Your task to perform on an android device: delete browsing data in the chrome app Image 0: 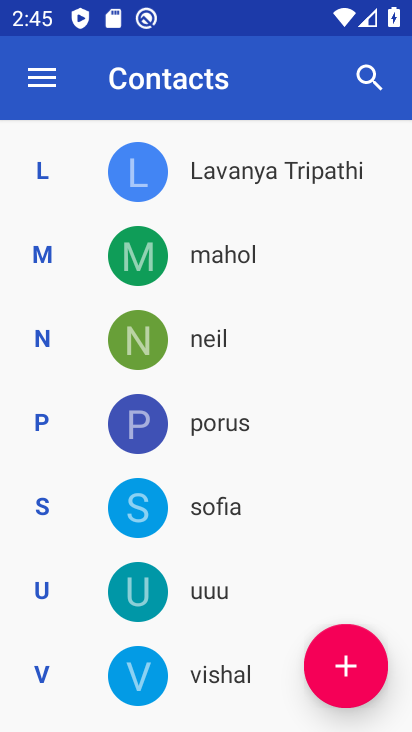
Step 0: press back button
Your task to perform on an android device: delete browsing data in the chrome app Image 1: 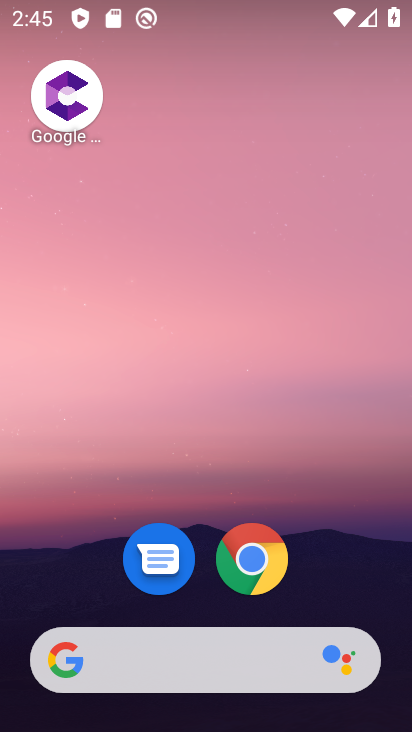
Step 1: drag from (222, 580) to (271, 63)
Your task to perform on an android device: delete browsing data in the chrome app Image 2: 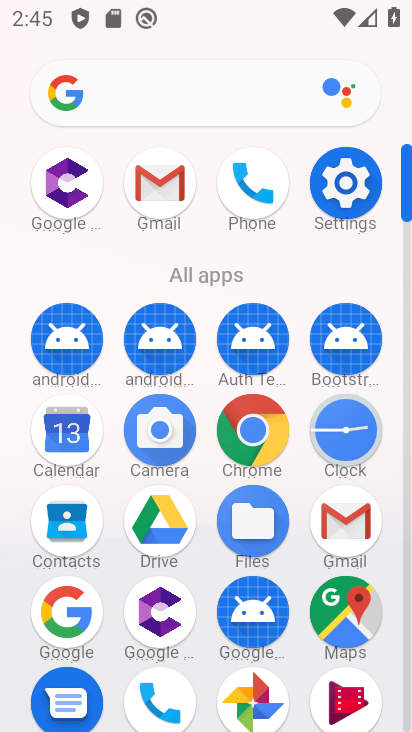
Step 2: click (259, 425)
Your task to perform on an android device: delete browsing data in the chrome app Image 3: 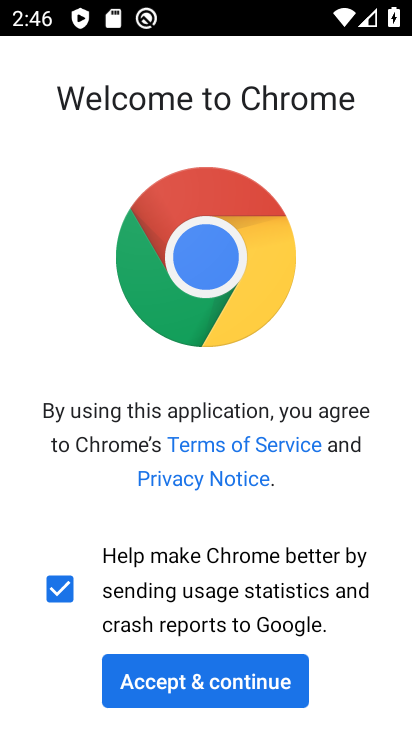
Step 3: click (213, 686)
Your task to perform on an android device: delete browsing data in the chrome app Image 4: 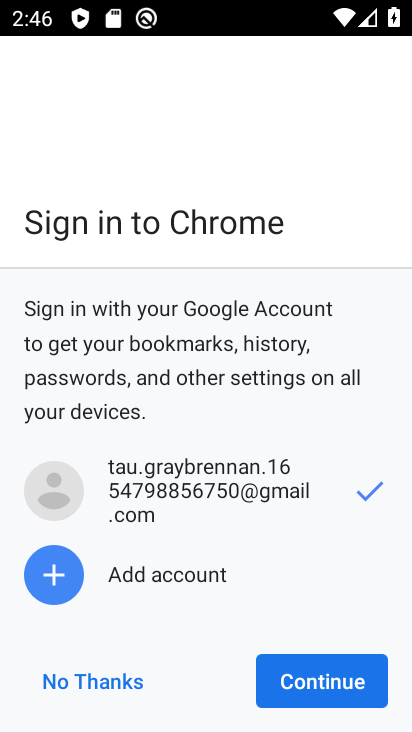
Step 4: click (326, 692)
Your task to perform on an android device: delete browsing data in the chrome app Image 5: 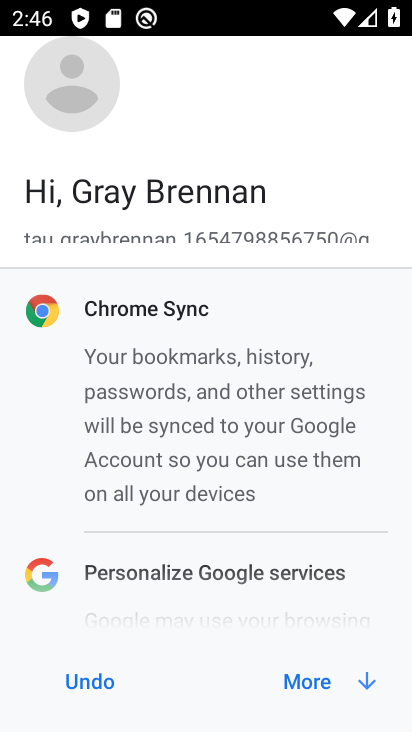
Step 5: click (323, 682)
Your task to perform on an android device: delete browsing data in the chrome app Image 6: 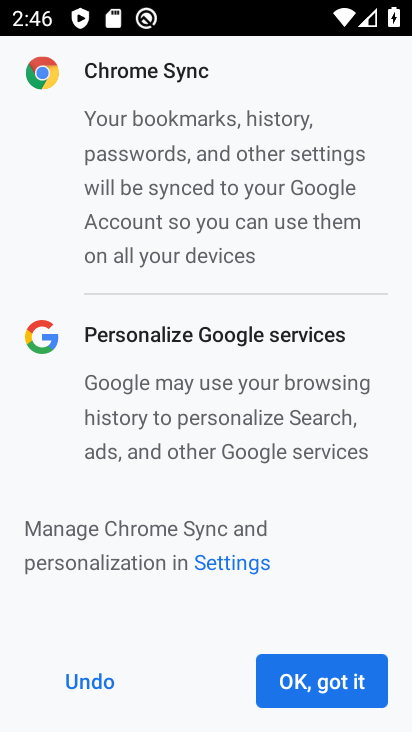
Step 6: click (318, 683)
Your task to perform on an android device: delete browsing data in the chrome app Image 7: 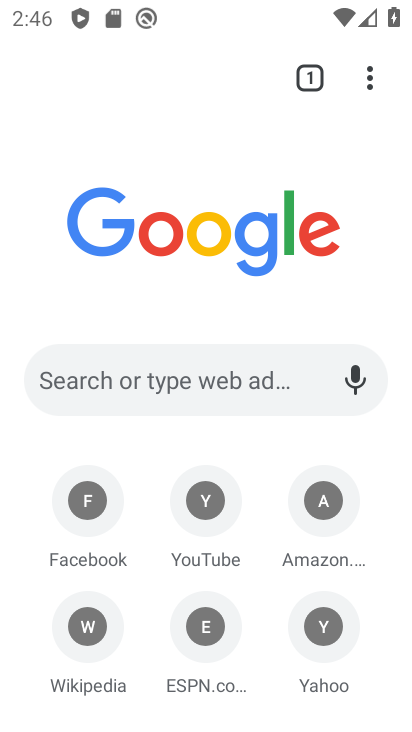
Step 7: drag from (370, 70) to (102, 429)
Your task to perform on an android device: delete browsing data in the chrome app Image 8: 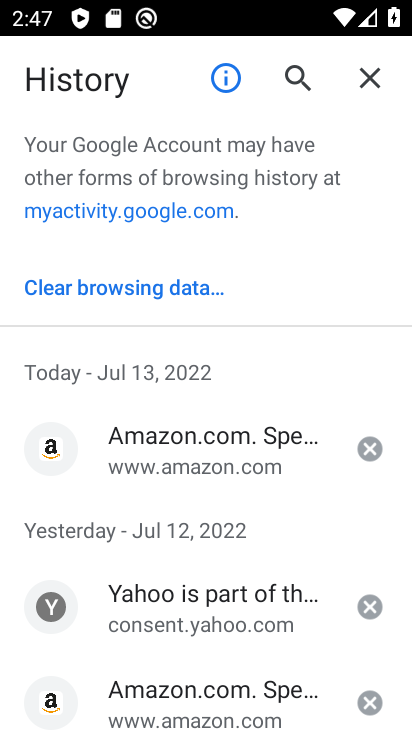
Step 8: click (182, 294)
Your task to perform on an android device: delete browsing data in the chrome app Image 9: 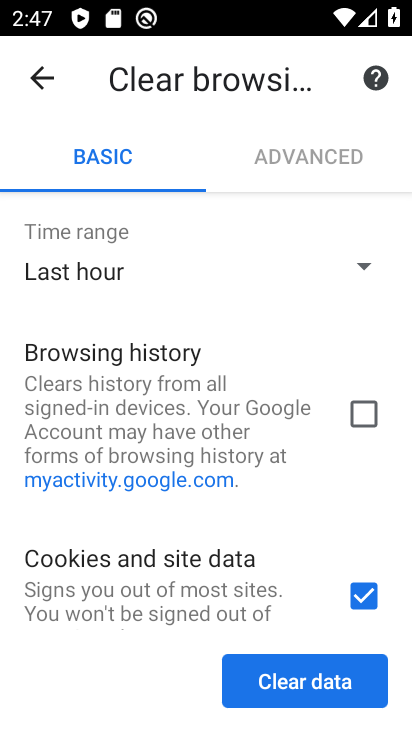
Step 9: click (382, 401)
Your task to perform on an android device: delete browsing data in the chrome app Image 10: 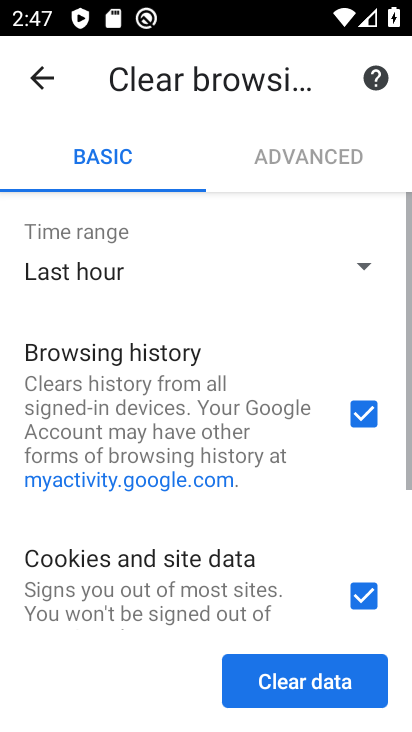
Step 10: drag from (234, 548) to (271, 217)
Your task to perform on an android device: delete browsing data in the chrome app Image 11: 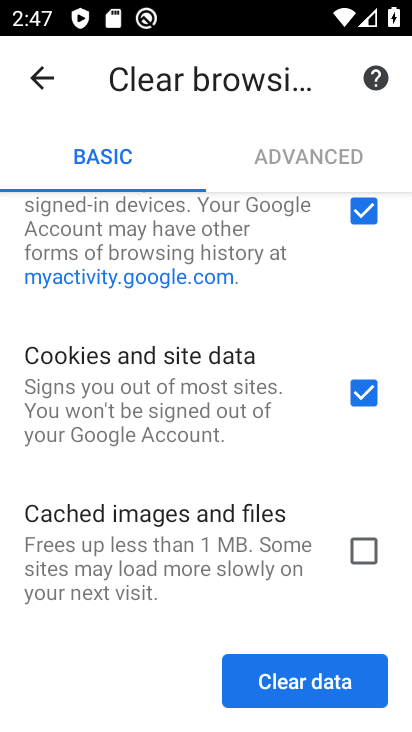
Step 11: click (359, 542)
Your task to perform on an android device: delete browsing data in the chrome app Image 12: 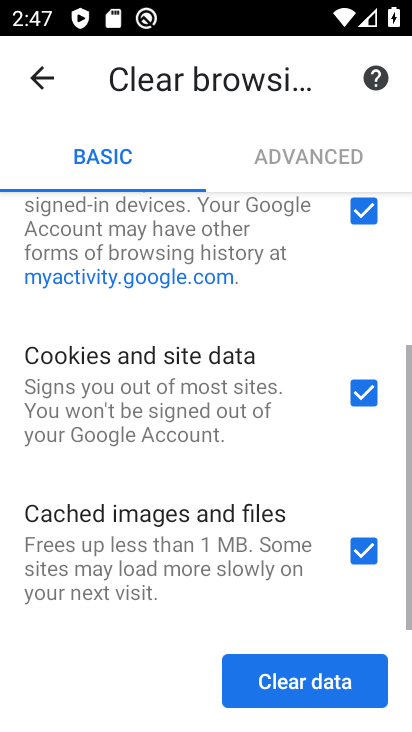
Step 12: click (292, 681)
Your task to perform on an android device: delete browsing data in the chrome app Image 13: 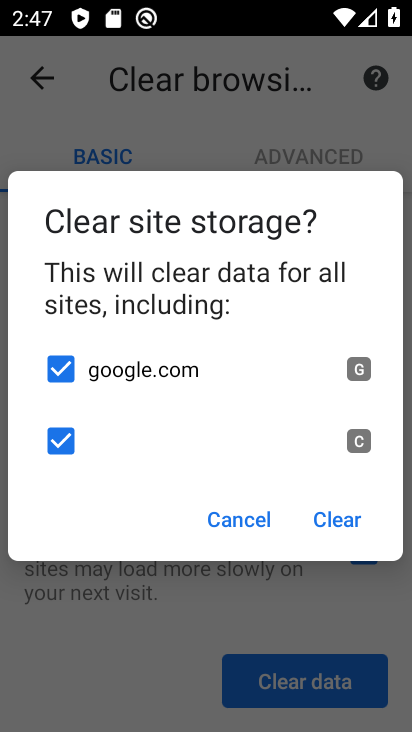
Step 13: click (347, 516)
Your task to perform on an android device: delete browsing data in the chrome app Image 14: 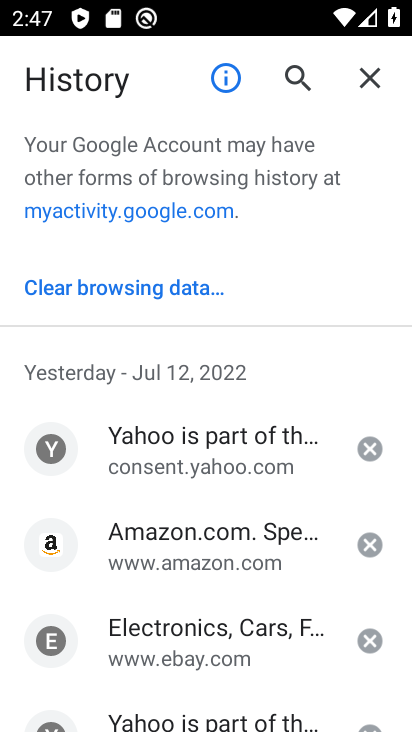
Step 14: click (184, 291)
Your task to perform on an android device: delete browsing data in the chrome app Image 15: 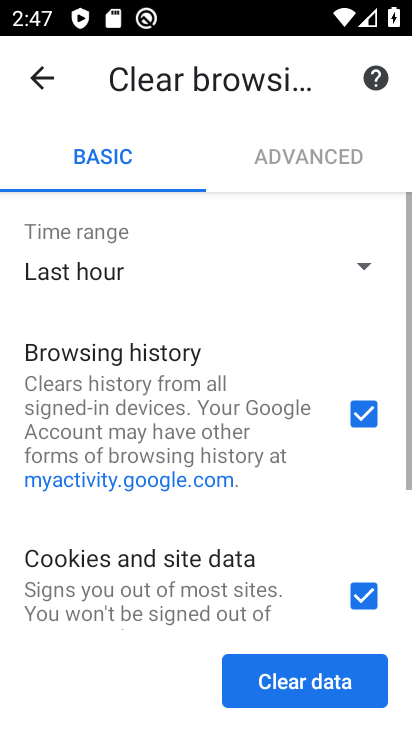
Step 15: drag from (241, 550) to (269, 154)
Your task to perform on an android device: delete browsing data in the chrome app Image 16: 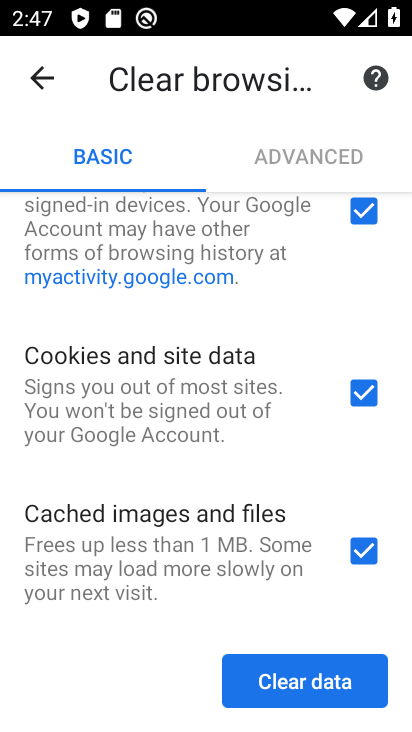
Step 16: click (291, 689)
Your task to perform on an android device: delete browsing data in the chrome app Image 17: 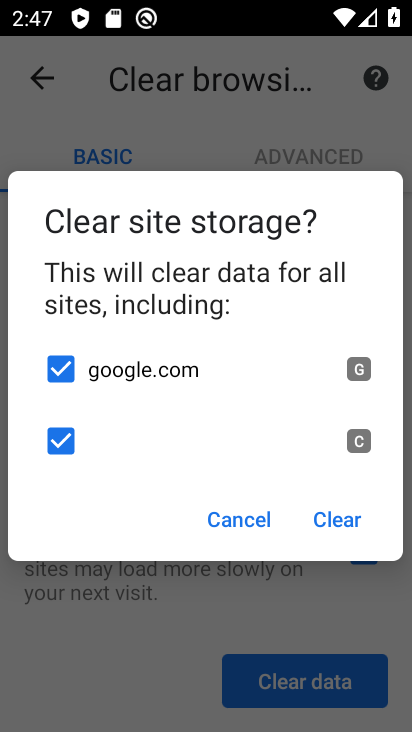
Step 17: click (330, 532)
Your task to perform on an android device: delete browsing data in the chrome app Image 18: 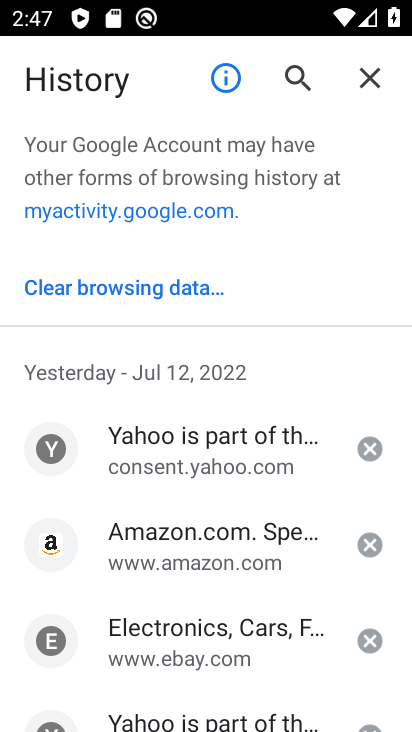
Step 18: task complete